Your task to perform on an android device: Go to privacy settings Image 0: 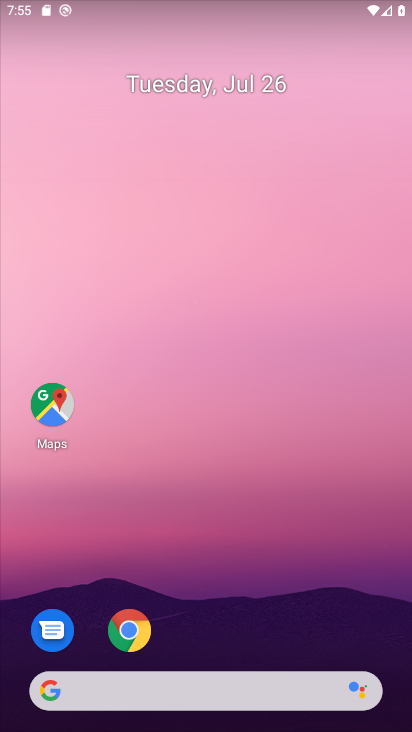
Step 0: drag from (299, 550) to (164, 10)
Your task to perform on an android device: Go to privacy settings Image 1: 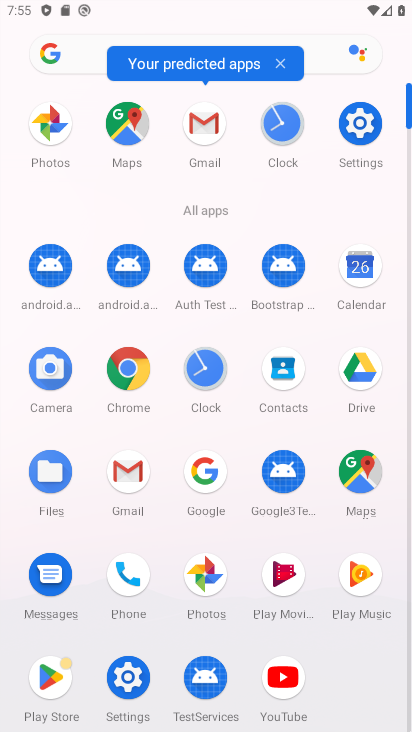
Step 1: click (368, 113)
Your task to perform on an android device: Go to privacy settings Image 2: 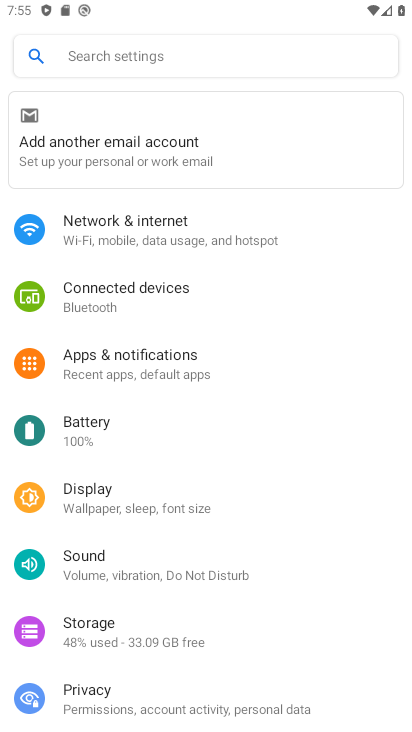
Step 2: click (128, 695)
Your task to perform on an android device: Go to privacy settings Image 3: 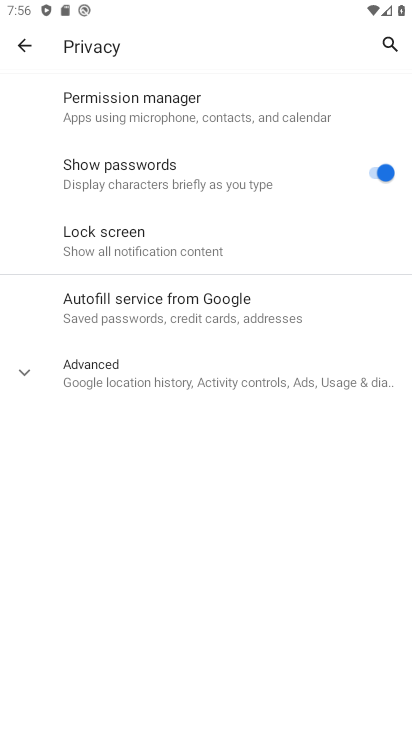
Step 3: task complete